Your task to perform on an android device: manage bookmarks in the chrome app Image 0: 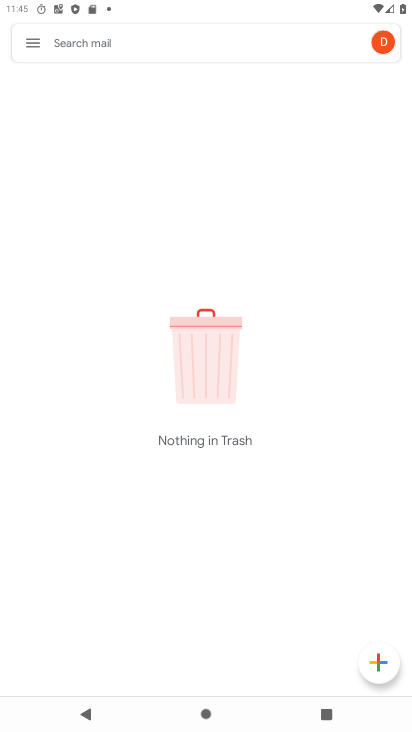
Step 0: press home button
Your task to perform on an android device: manage bookmarks in the chrome app Image 1: 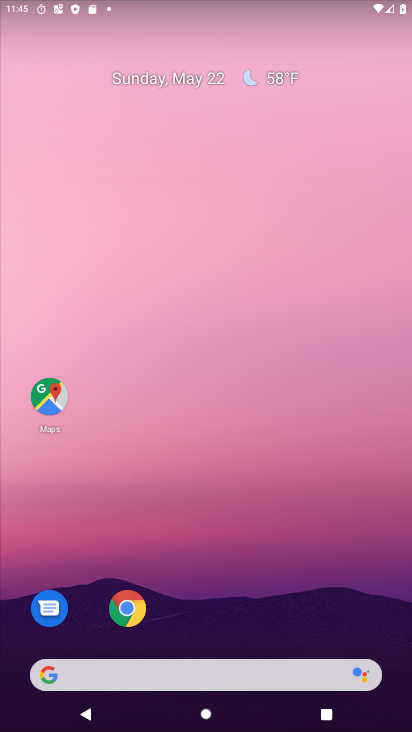
Step 1: drag from (219, 627) to (185, 108)
Your task to perform on an android device: manage bookmarks in the chrome app Image 2: 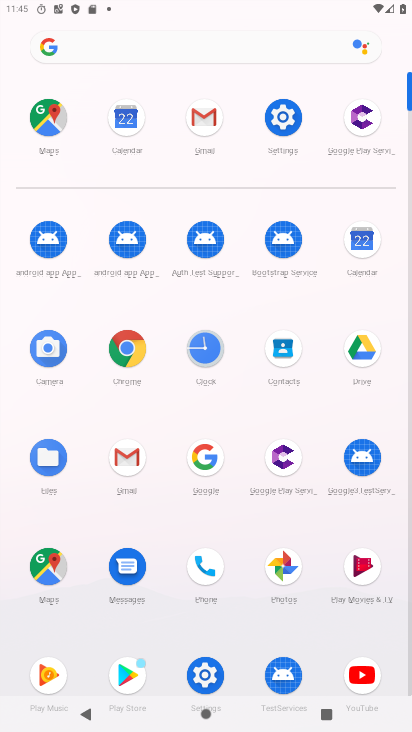
Step 2: click (125, 356)
Your task to perform on an android device: manage bookmarks in the chrome app Image 3: 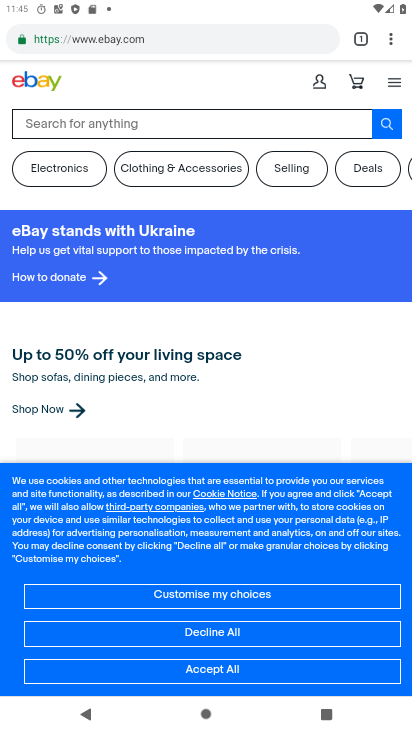
Step 3: click (386, 30)
Your task to perform on an android device: manage bookmarks in the chrome app Image 4: 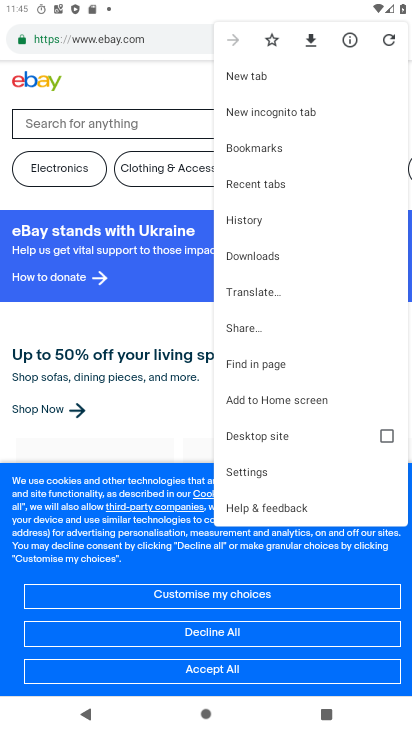
Step 4: click (299, 149)
Your task to perform on an android device: manage bookmarks in the chrome app Image 5: 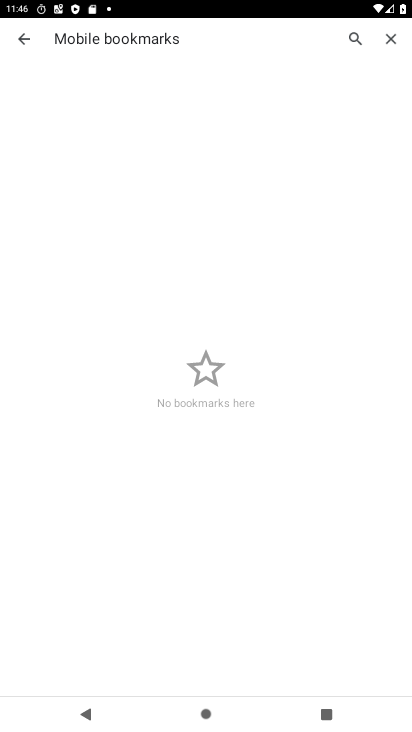
Step 5: task complete